Your task to perform on an android device: Open Google Image 0: 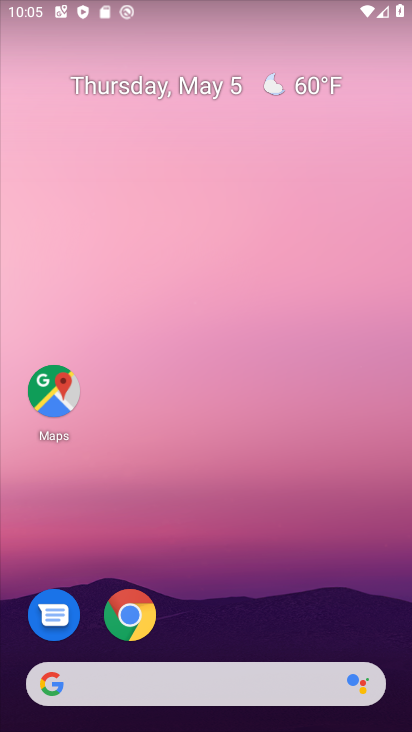
Step 0: drag from (273, 592) to (270, 89)
Your task to perform on an android device: Open Google Image 1: 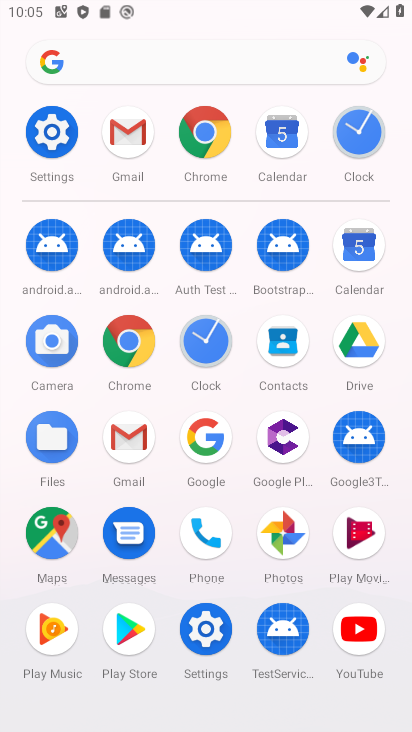
Step 1: click (202, 442)
Your task to perform on an android device: Open Google Image 2: 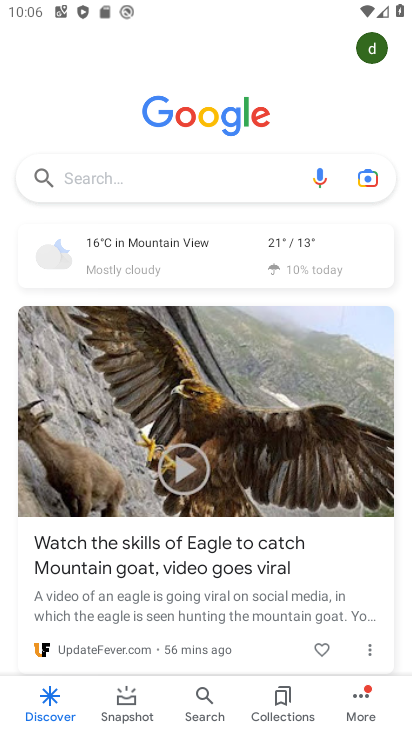
Step 2: task complete